Your task to perform on an android device: turn off location history Image 0: 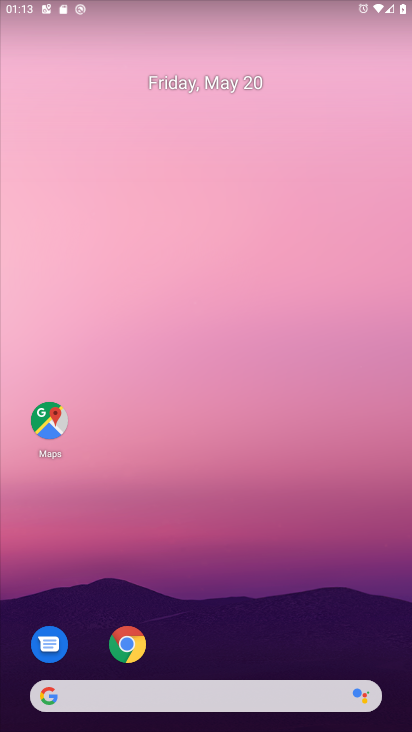
Step 0: drag from (242, 655) to (227, 111)
Your task to perform on an android device: turn off location history Image 1: 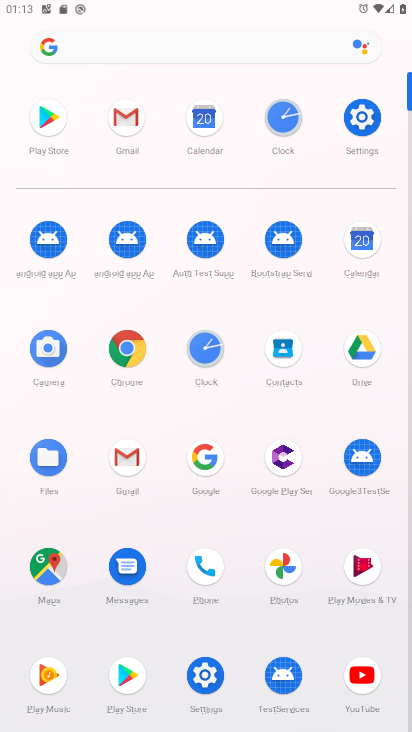
Step 1: click (375, 126)
Your task to perform on an android device: turn off location history Image 2: 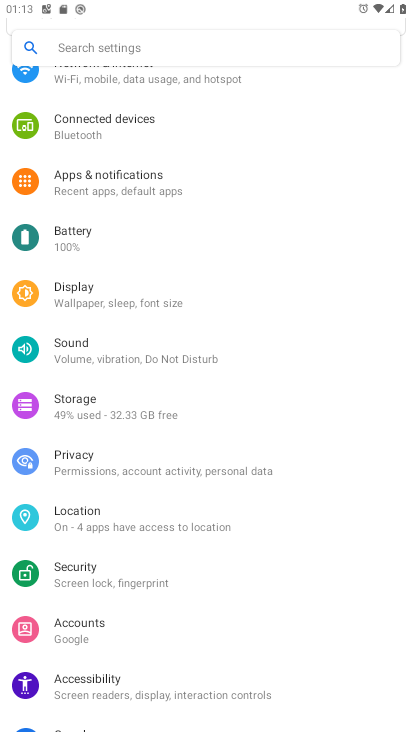
Step 2: drag from (113, 720) to (98, 296)
Your task to perform on an android device: turn off location history Image 3: 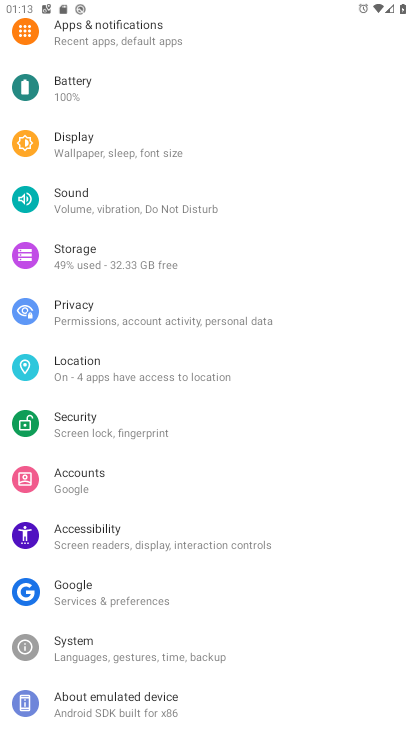
Step 3: click (70, 371)
Your task to perform on an android device: turn off location history Image 4: 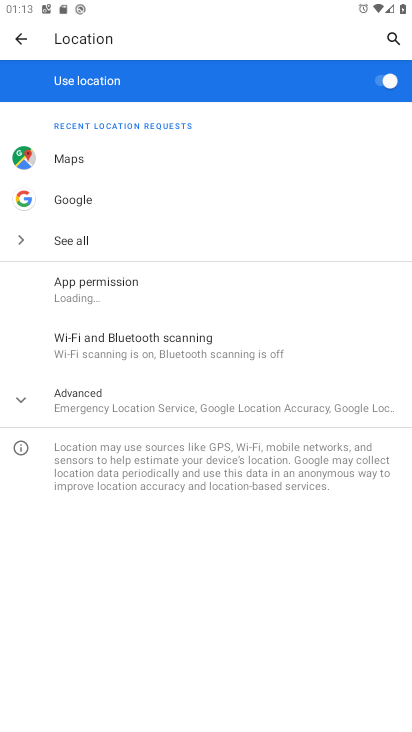
Step 4: click (111, 404)
Your task to perform on an android device: turn off location history Image 5: 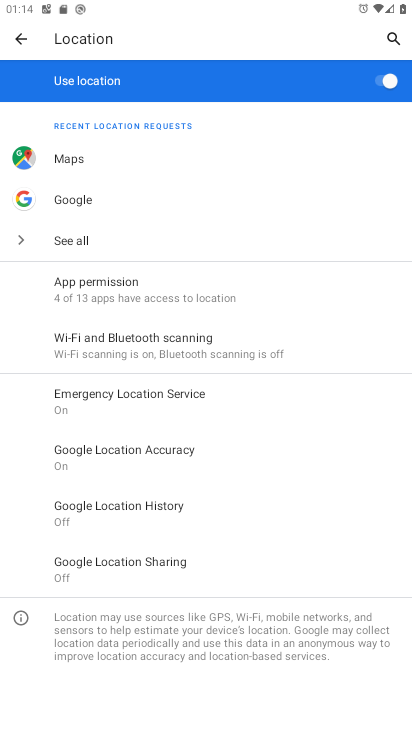
Step 5: click (131, 506)
Your task to perform on an android device: turn off location history Image 6: 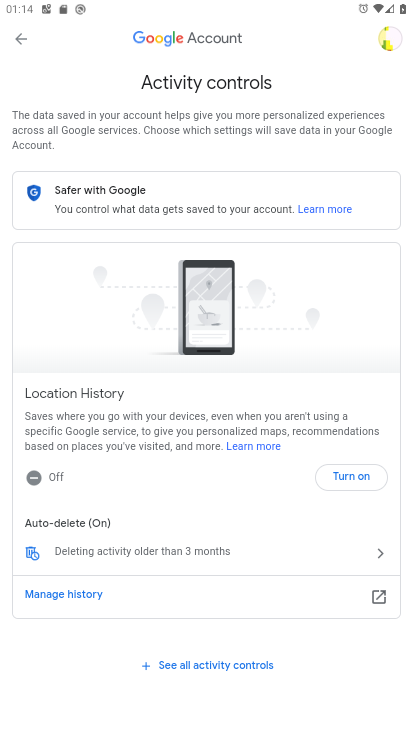
Step 6: task complete